Your task to perform on an android device: check android version Image 0: 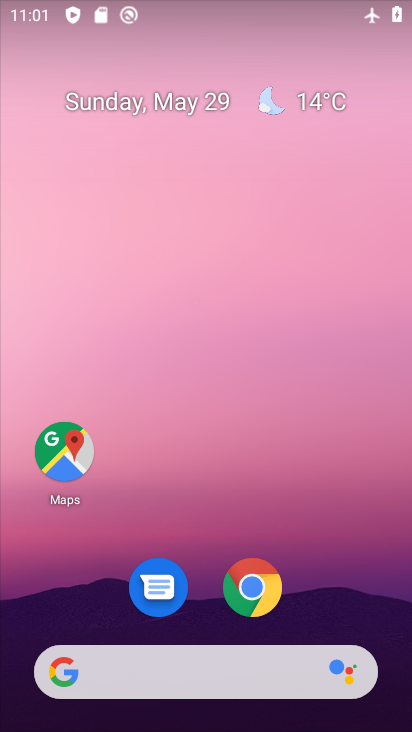
Step 0: drag from (380, 609) to (325, 188)
Your task to perform on an android device: check android version Image 1: 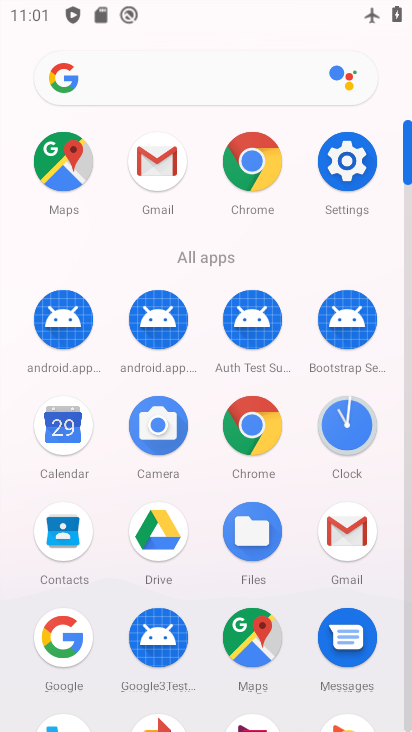
Step 1: click (370, 165)
Your task to perform on an android device: check android version Image 2: 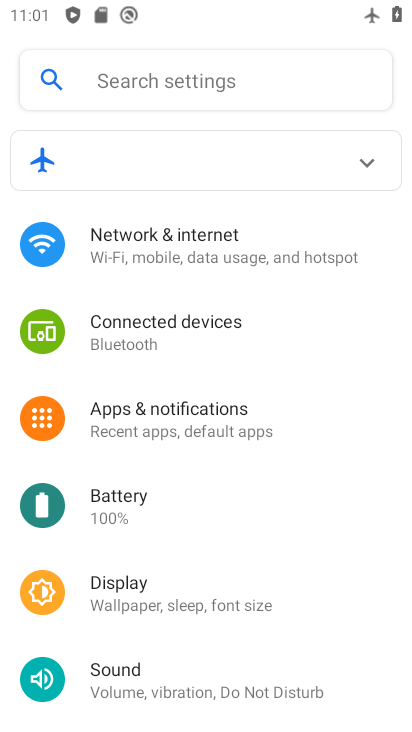
Step 2: drag from (314, 699) to (319, 232)
Your task to perform on an android device: check android version Image 3: 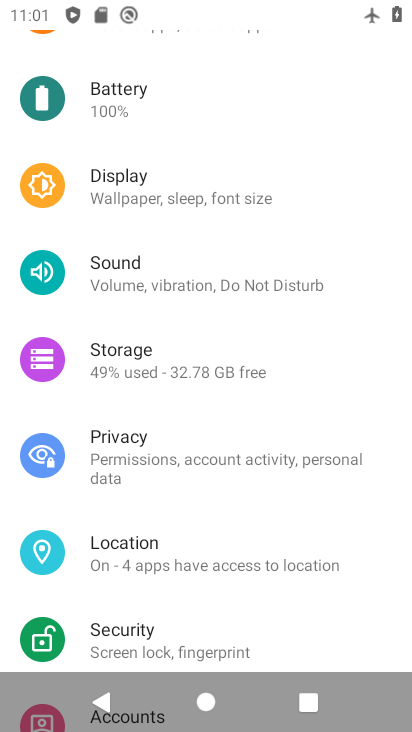
Step 3: drag from (252, 677) to (284, 207)
Your task to perform on an android device: check android version Image 4: 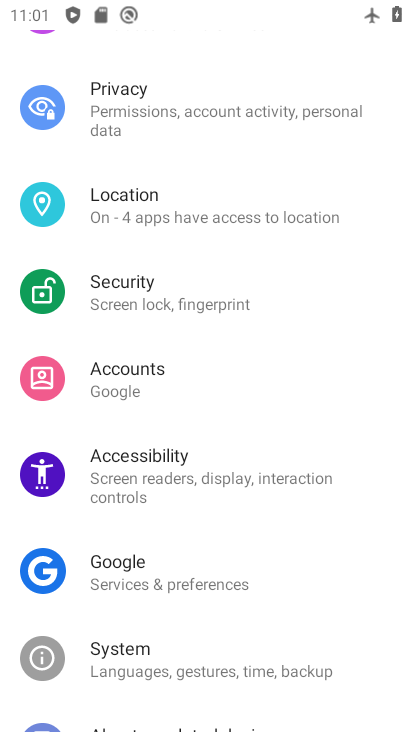
Step 4: drag from (269, 668) to (258, 315)
Your task to perform on an android device: check android version Image 5: 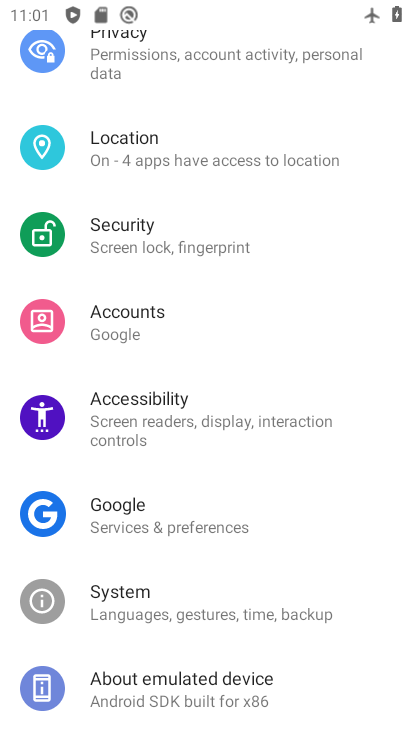
Step 5: click (224, 683)
Your task to perform on an android device: check android version Image 6: 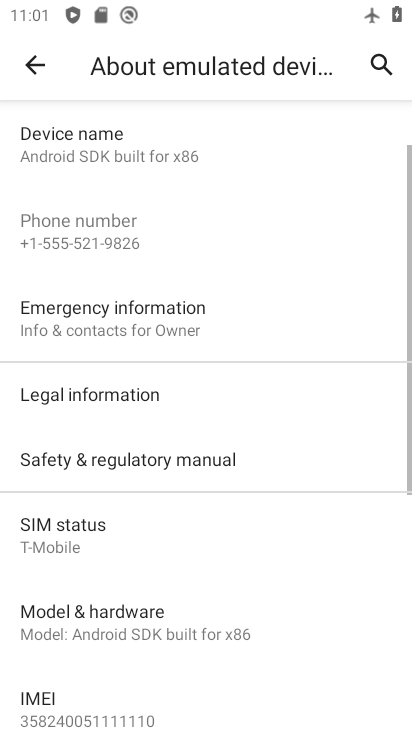
Step 6: drag from (258, 577) to (251, 142)
Your task to perform on an android device: check android version Image 7: 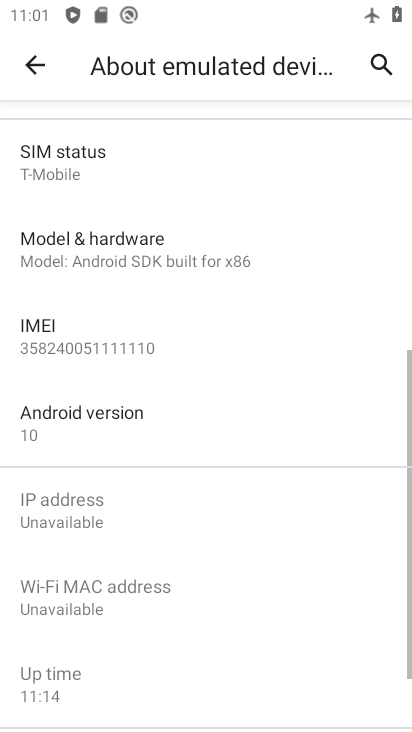
Step 7: click (108, 417)
Your task to perform on an android device: check android version Image 8: 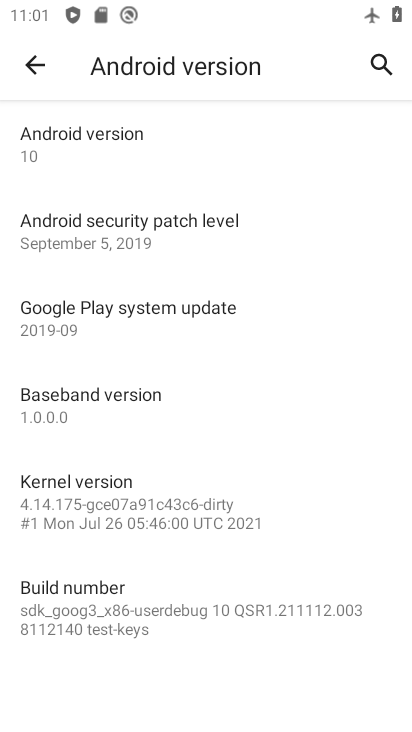
Step 8: task complete